Your task to perform on an android device: empty trash in the gmail app Image 0: 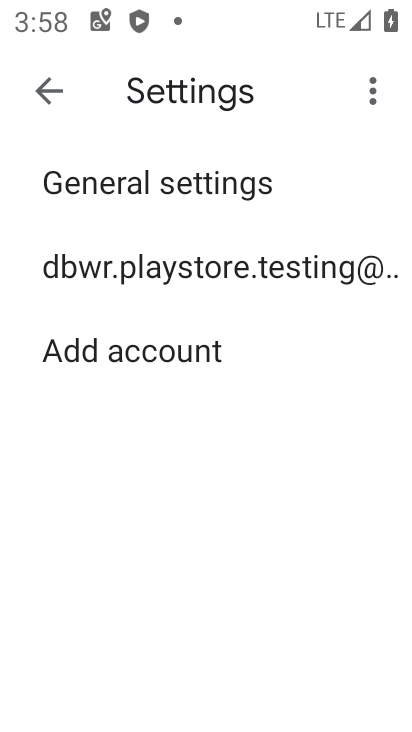
Step 0: click (45, 84)
Your task to perform on an android device: empty trash in the gmail app Image 1: 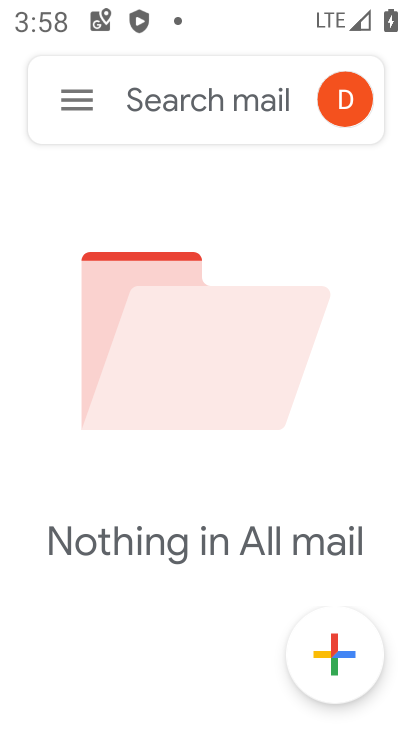
Step 1: click (68, 90)
Your task to perform on an android device: empty trash in the gmail app Image 2: 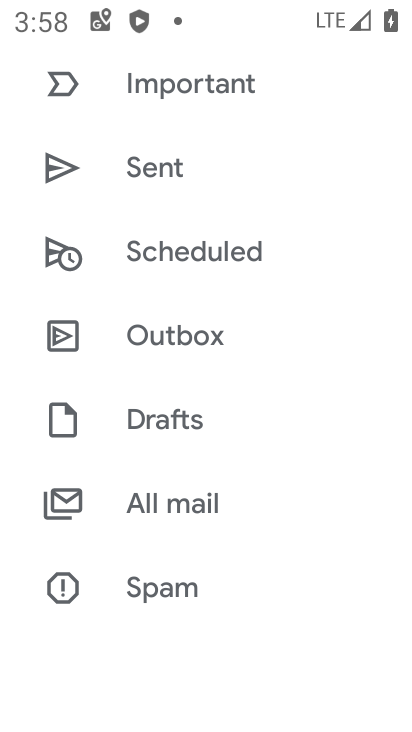
Step 2: drag from (258, 141) to (162, 588)
Your task to perform on an android device: empty trash in the gmail app Image 3: 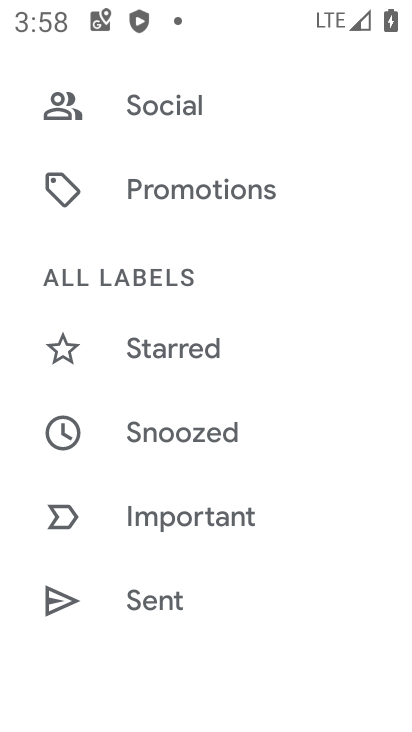
Step 3: drag from (195, 122) to (207, 583)
Your task to perform on an android device: empty trash in the gmail app Image 4: 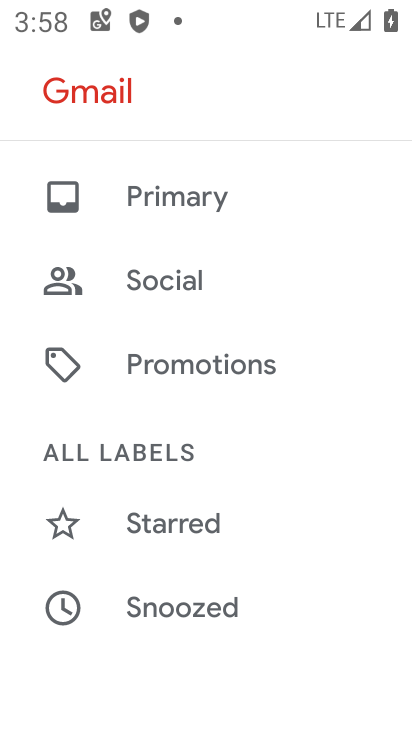
Step 4: drag from (227, 200) to (297, 149)
Your task to perform on an android device: empty trash in the gmail app Image 5: 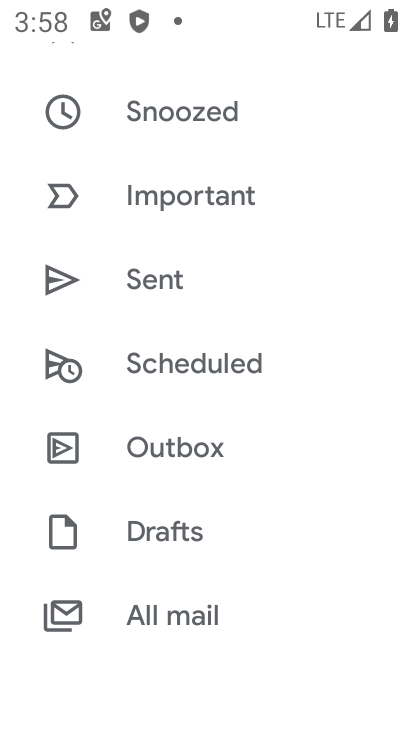
Step 5: drag from (224, 581) to (294, 87)
Your task to perform on an android device: empty trash in the gmail app Image 6: 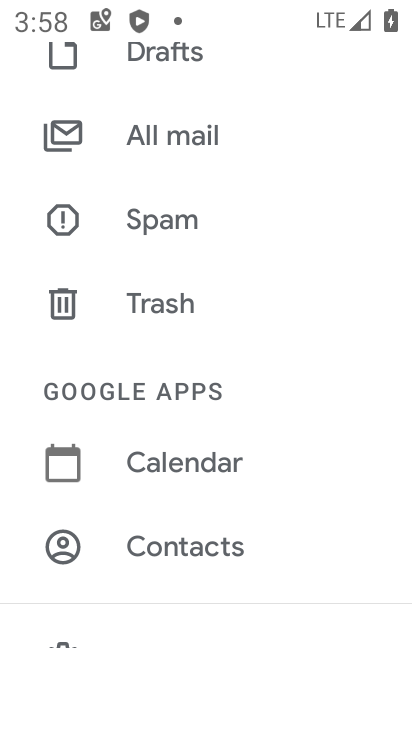
Step 6: click (170, 307)
Your task to perform on an android device: empty trash in the gmail app Image 7: 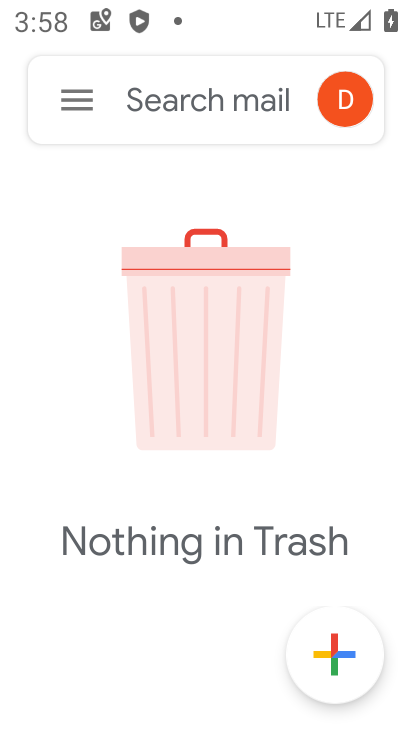
Step 7: task complete